Your task to perform on an android device: Open calendar and show me the second week of next month Image 0: 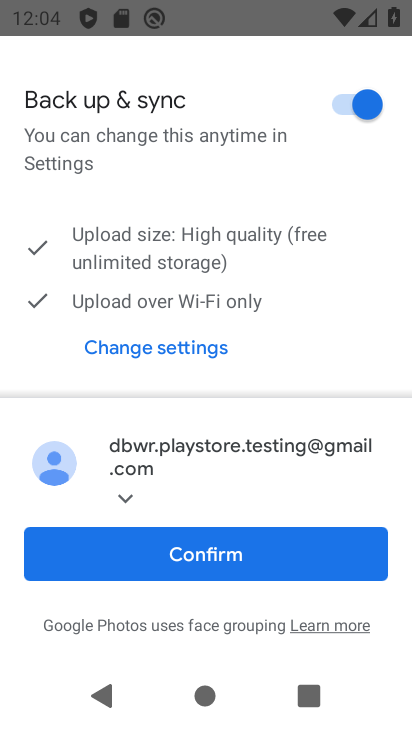
Step 0: press home button
Your task to perform on an android device: Open calendar and show me the second week of next month Image 1: 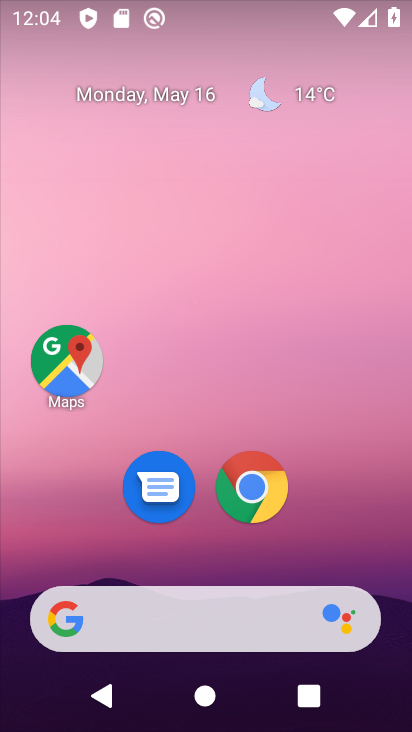
Step 1: drag from (163, 631) to (291, 260)
Your task to perform on an android device: Open calendar and show me the second week of next month Image 2: 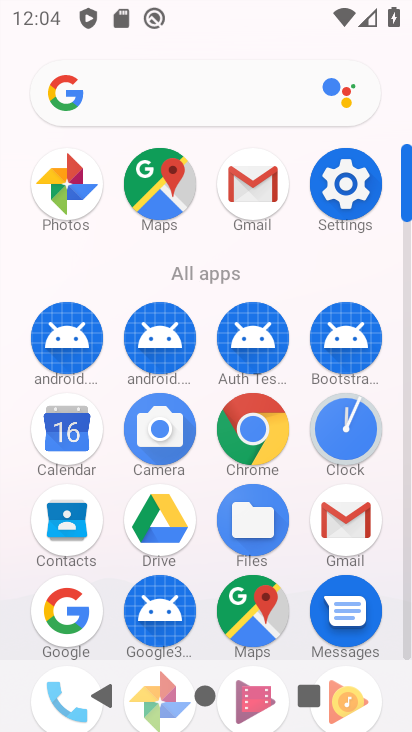
Step 2: click (62, 434)
Your task to perform on an android device: Open calendar and show me the second week of next month Image 3: 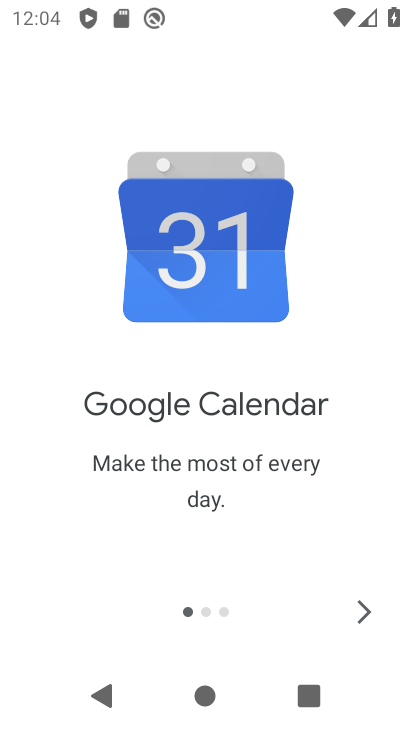
Step 3: click (366, 604)
Your task to perform on an android device: Open calendar and show me the second week of next month Image 4: 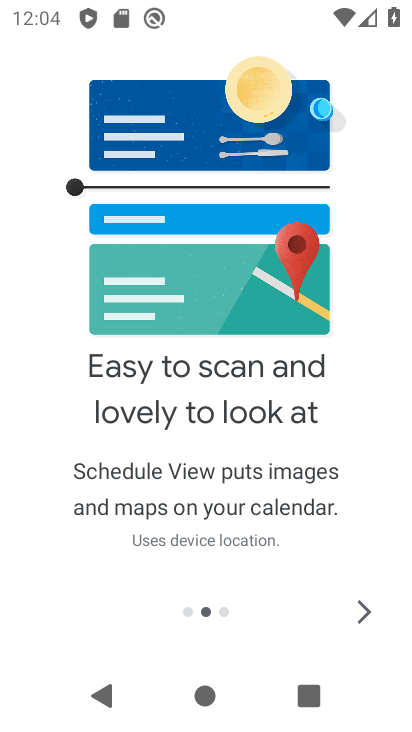
Step 4: click (366, 603)
Your task to perform on an android device: Open calendar and show me the second week of next month Image 5: 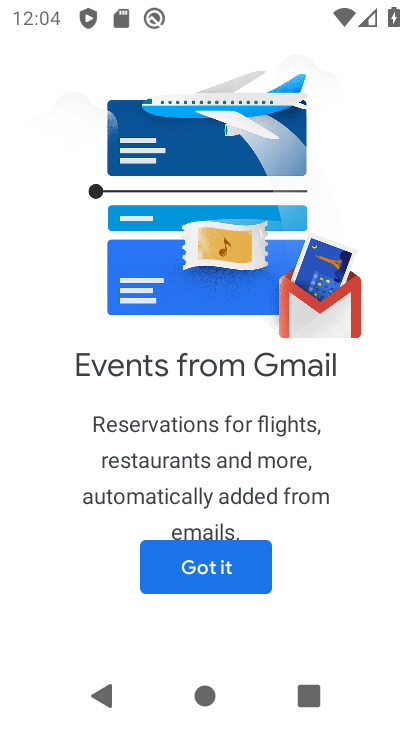
Step 5: click (232, 577)
Your task to perform on an android device: Open calendar and show me the second week of next month Image 6: 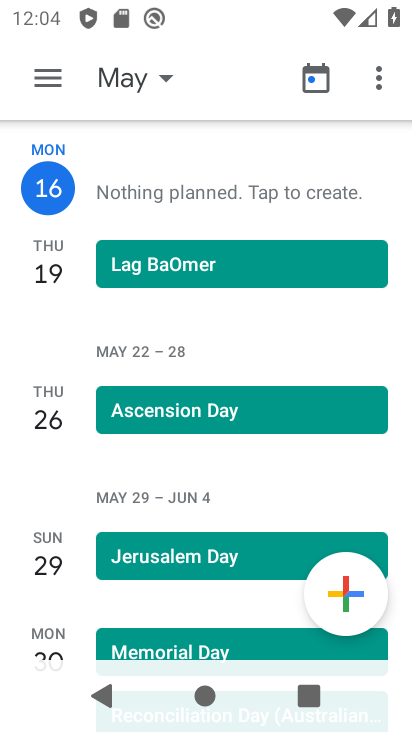
Step 6: click (128, 84)
Your task to perform on an android device: Open calendar and show me the second week of next month Image 7: 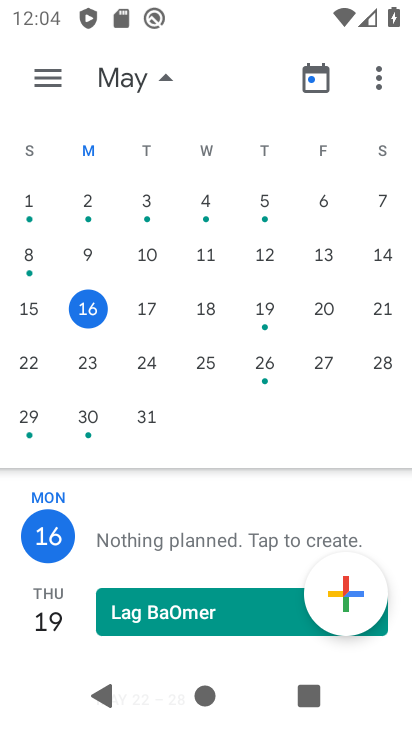
Step 7: click (25, 224)
Your task to perform on an android device: Open calendar and show me the second week of next month Image 8: 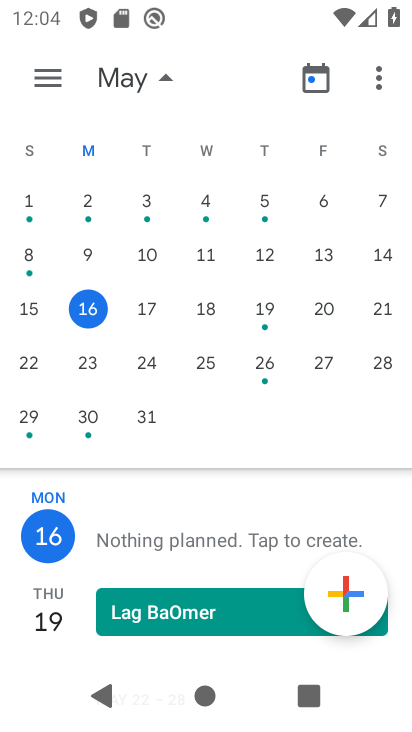
Step 8: drag from (373, 223) to (118, 208)
Your task to perform on an android device: Open calendar and show me the second week of next month Image 9: 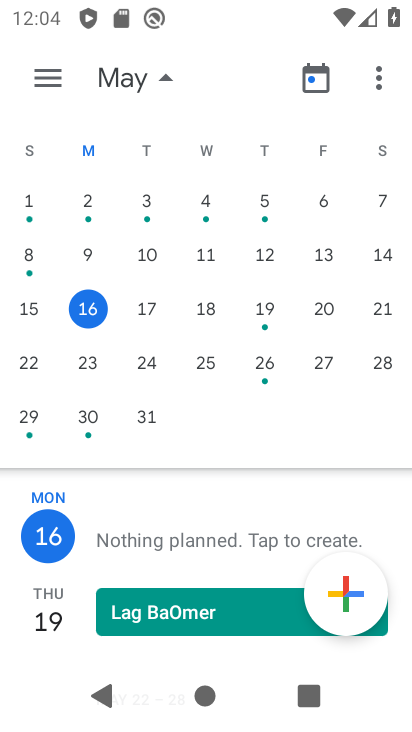
Step 9: drag from (368, 228) to (45, 221)
Your task to perform on an android device: Open calendar and show me the second week of next month Image 10: 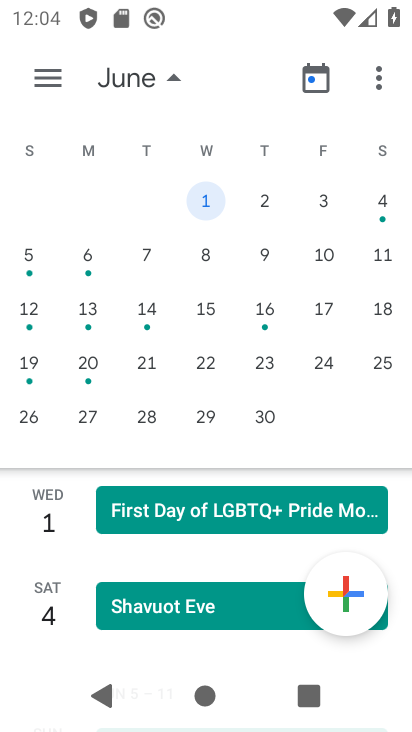
Step 10: click (20, 257)
Your task to perform on an android device: Open calendar and show me the second week of next month Image 11: 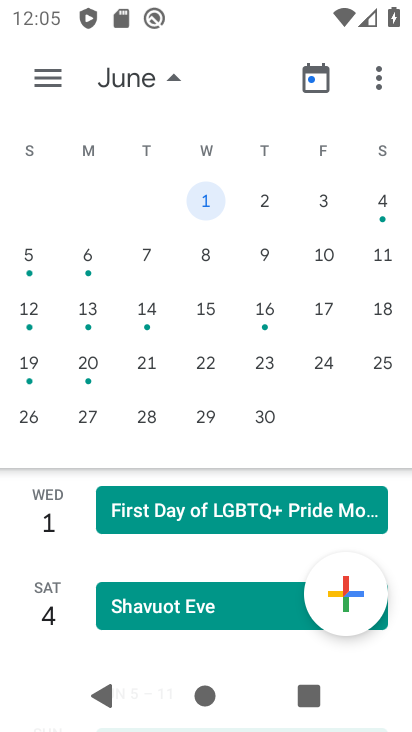
Step 11: click (37, 257)
Your task to perform on an android device: Open calendar and show me the second week of next month Image 12: 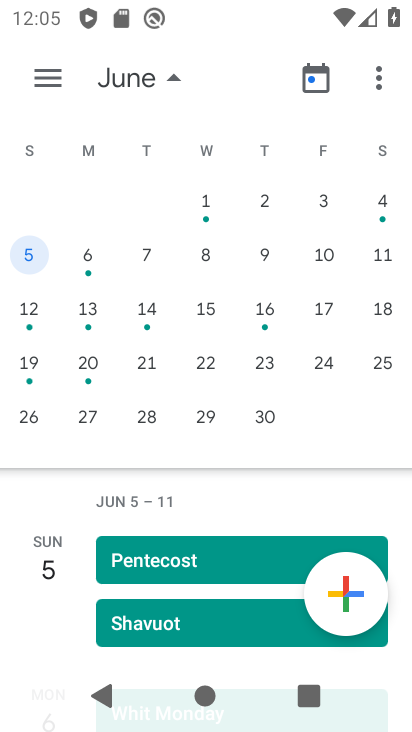
Step 12: click (50, 76)
Your task to perform on an android device: Open calendar and show me the second week of next month Image 13: 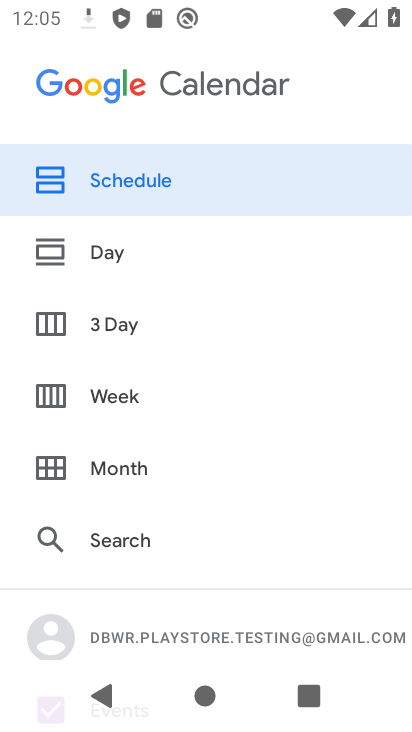
Step 13: click (110, 393)
Your task to perform on an android device: Open calendar and show me the second week of next month Image 14: 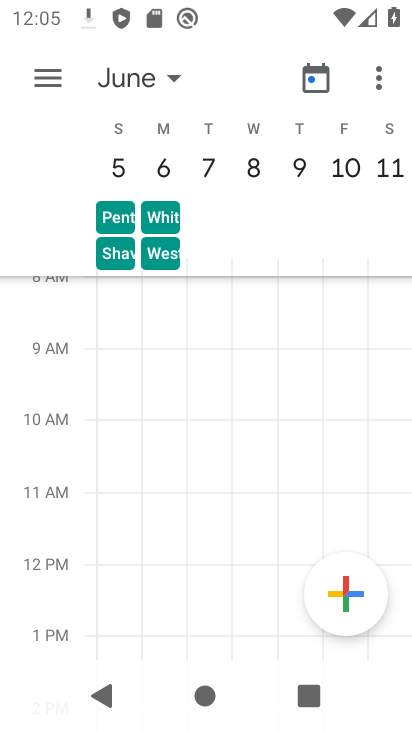
Step 14: click (62, 80)
Your task to perform on an android device: Open calendar and show me the second week of next month Image 15: 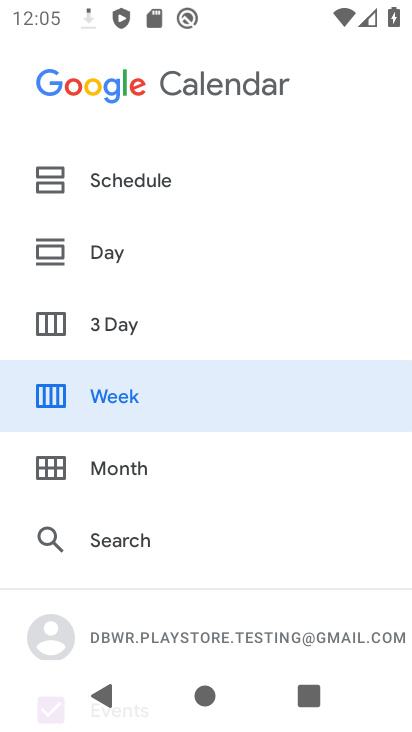
Step 15: click (139, 172)
Your task to perform on an android device: Open calendar and show me the second week of next month Image 16: 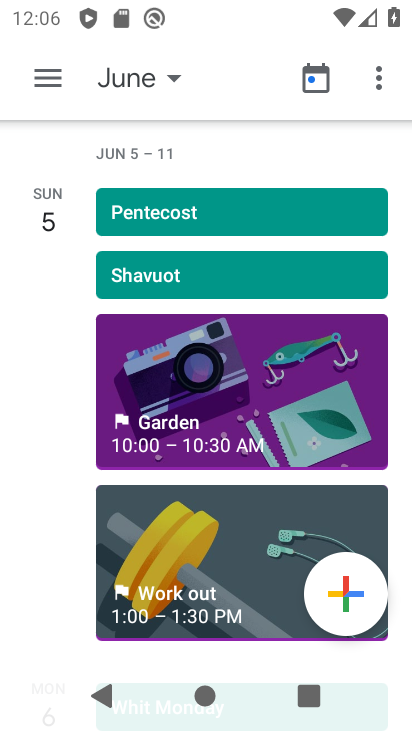
Step 16: click (135, 81)
Your task to perform on an android device: Open calendar and show me the second week of next month Image 17: 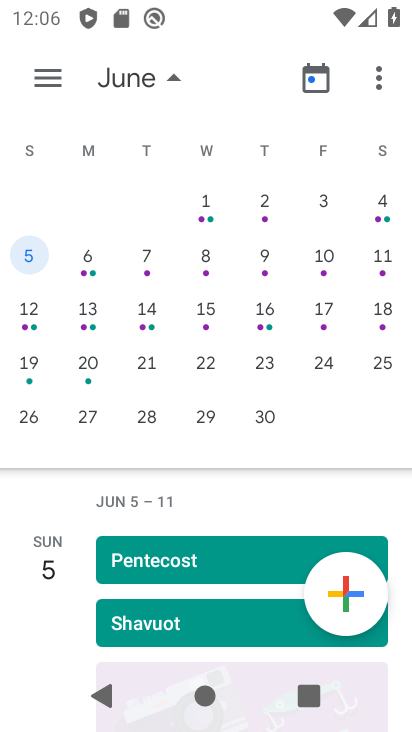
Step 17: click (54, 77)
Your task to perform on an android device: Open calendar and show me the second week of next month Image 18: 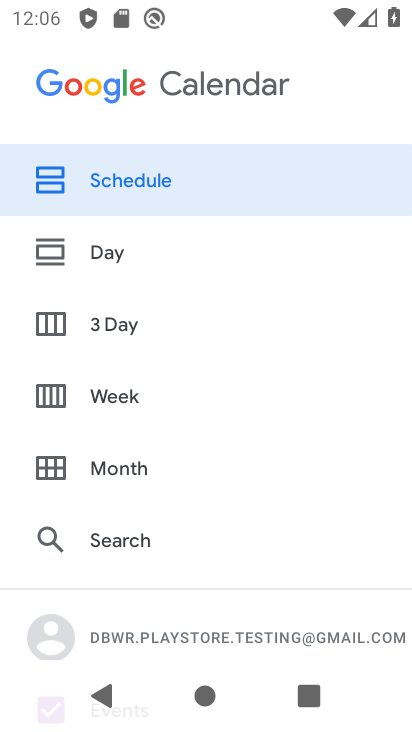
Step 18: click (105, 400)
Your task to perform on an android device: Open calendar and show me the second week of next month Image 19: 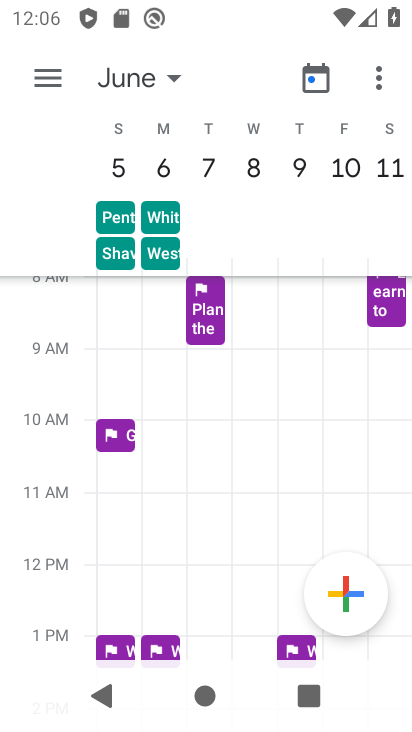
Step 19: task complete